Your task to perform on an android device: set the timer Image 0: 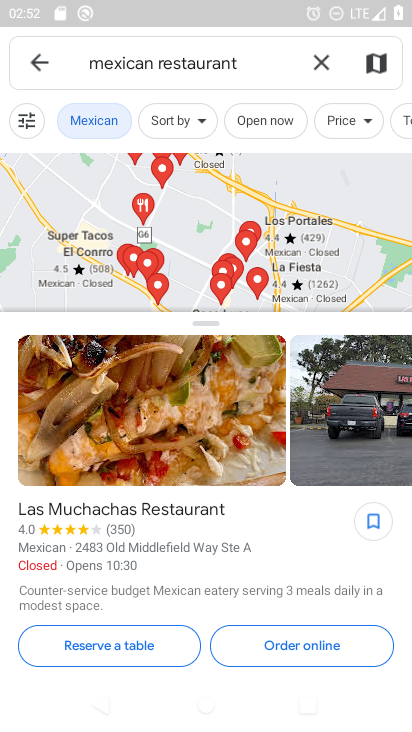
Step 0: press home button
Your task to perform on an android device: set the timer Image 1: 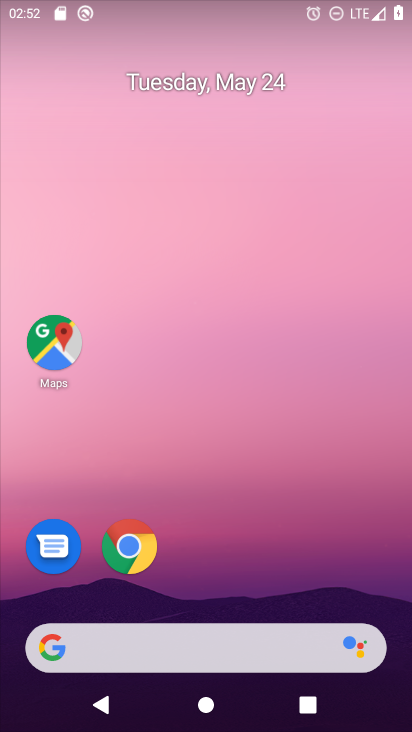
Step 1: drag from (230, 447) to (276, 90)
Your task to perform on an android device: set the timer Image 2: 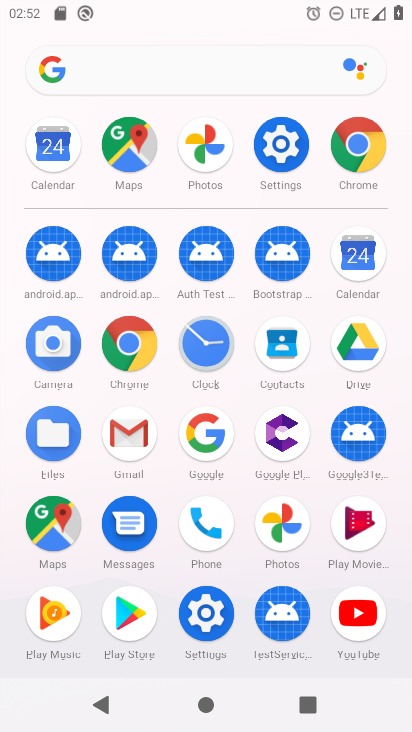
Step 2: click (220, 330)
Your task to perform on an android device: set the timer Image 3: 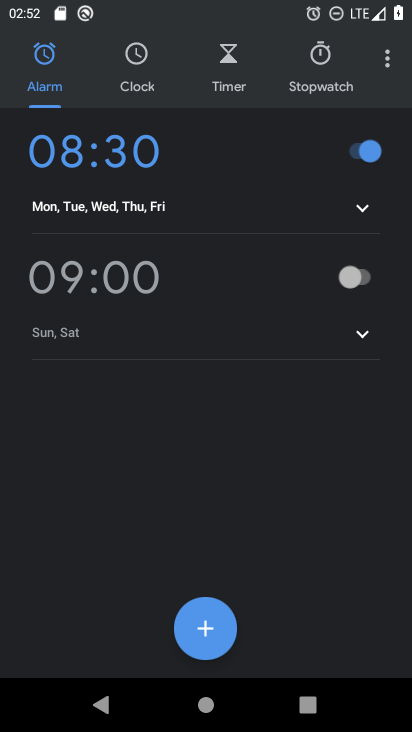
Step 3: click (243, 60)
Your task to perform on an android device: set the timer Image 4: 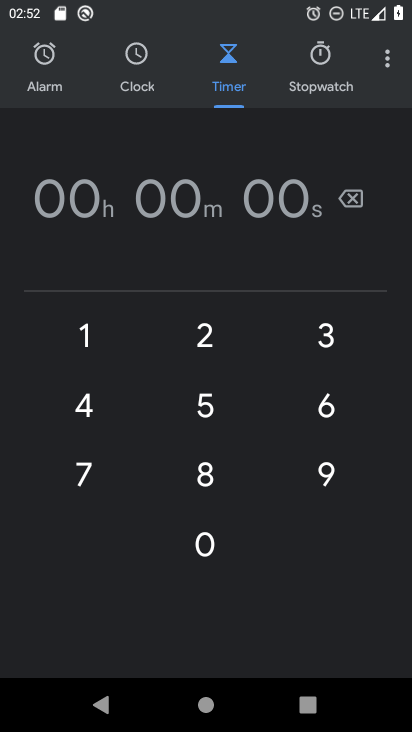
Step 4: task complete